Your task to perform on an android device: set the timer Image 0: 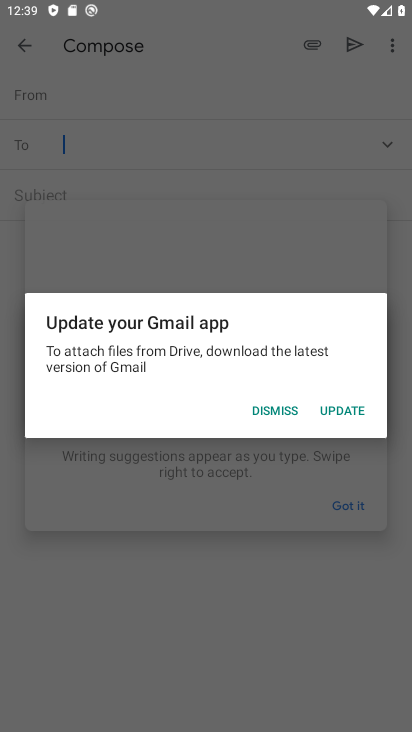
Step 0: press home button
Your task to perform on an android device: set the timer Image 1: 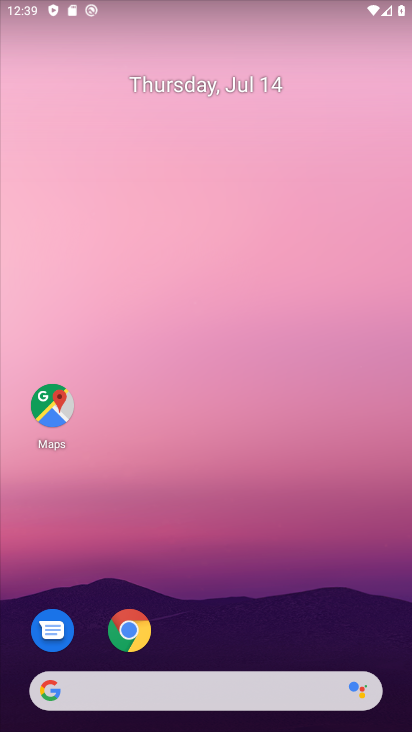
Step 1: drag from (230, 608) to (303, 133)
Your task to perform on an android device: set the timer Image 2: 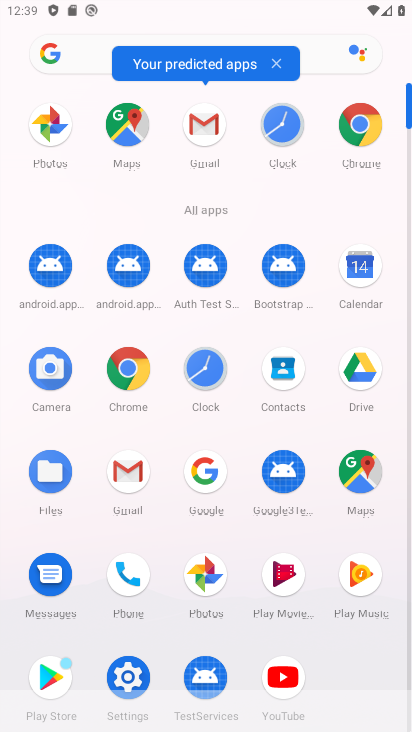
Step 2: drag from (200, 365) to (308, 247)
Your task to perform on an android device: set the timer Image 3: 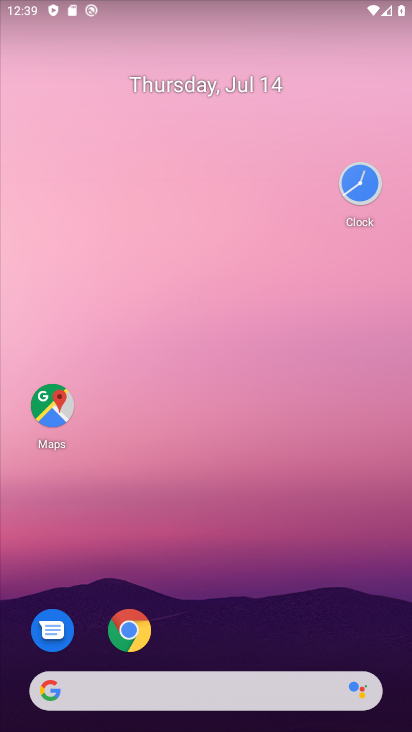
Step 3: click (375, 172)
Your task to perform on an android device: set the timer Image 4: 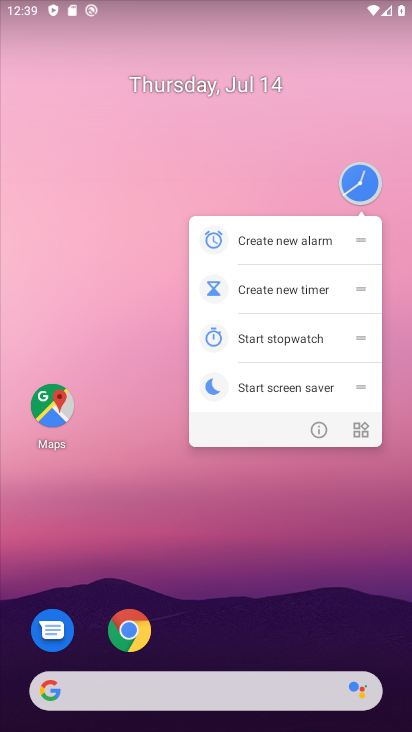
Step 4: click (261, 243)
Your task to perform on an android device: set the timer Image 5: 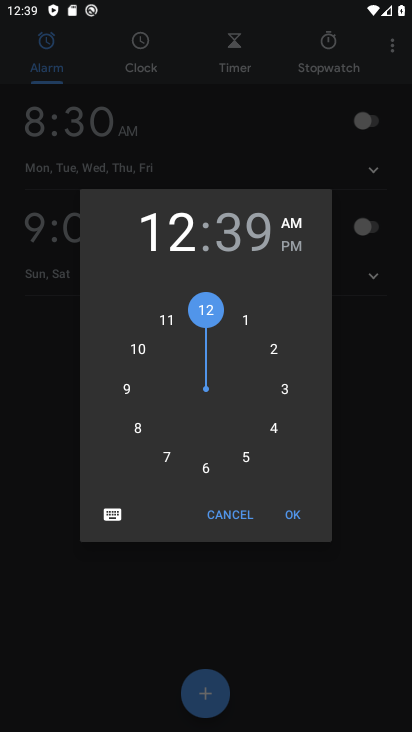
Step 5: click (307, 519)
Your task to perform on an android device: set the timer Image 6: 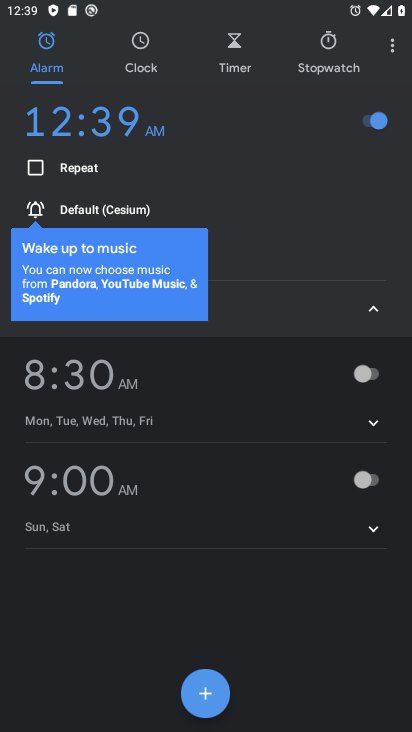
Step 6: task complete